Your task to perform on an android device: read, delete, or share a saved page in the chrome app Image 0: 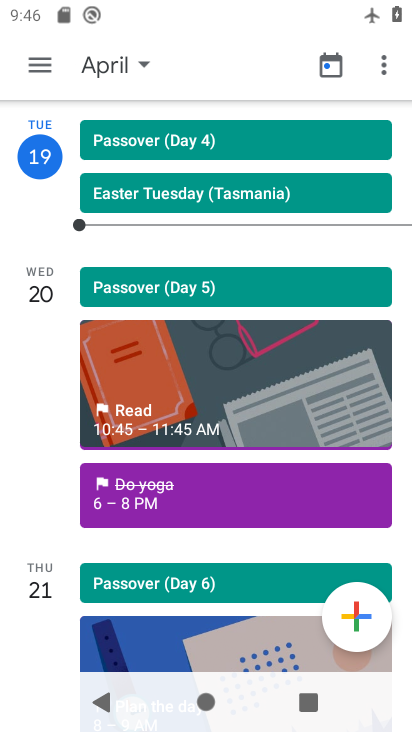
Step 0: press home button
Your task to perform on an android device: read, delete, or share a saved page in the chrome app Image 1: 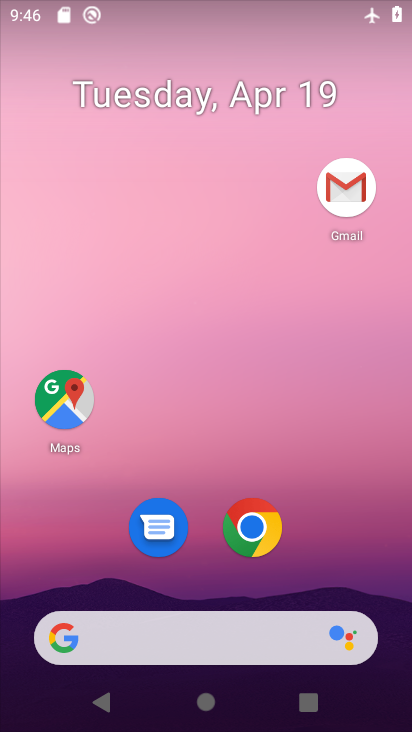
Step 1: click (272, 518)
Your task to perform on an android device: read, delete, or share a saved page in the chrome app Image 2: 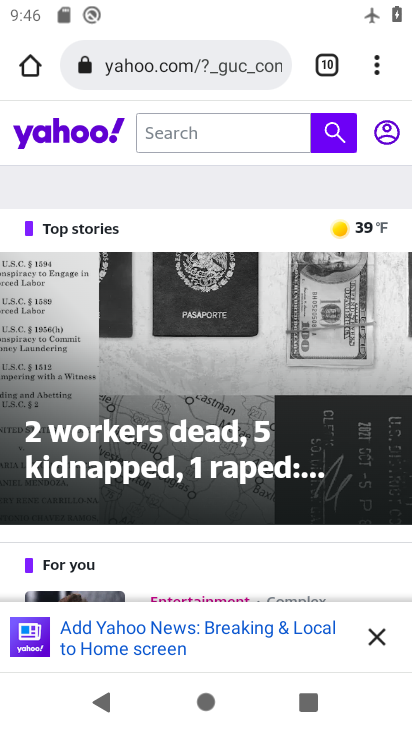
Step 2: click (380, 92)
Your task to perform on an android device: read, delete, or share a saved page in the chrome app Image 3: 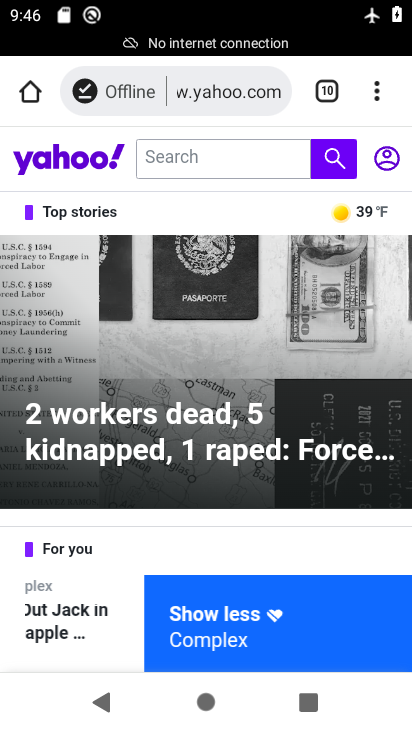
Step 3: click (376, 98)
Your task to perform on an android device: read, delete, or share a saved page in the chrome app Image 4: 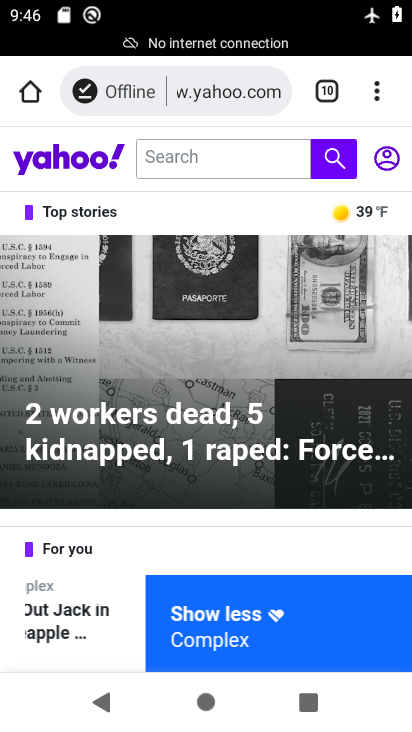
Step 4: click (395, 112)
Your task to perform on an android device: read, delete, or share a saved page in the chrome app Image 5: 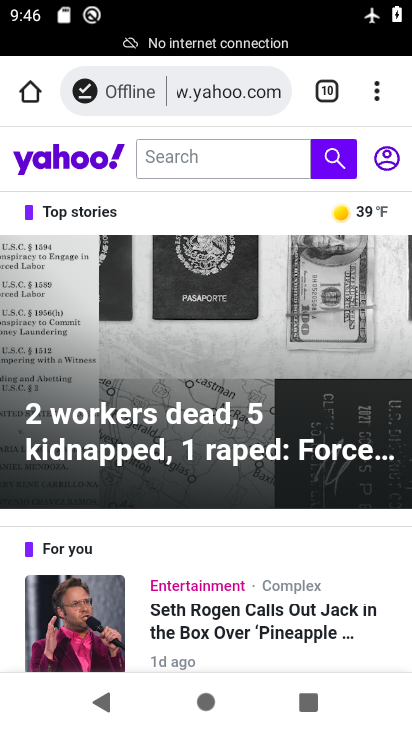
Step 5: drag from (391, 105) to (315, 249)
Your task to perform on an android device: read, delete, or share a saved page in the chrome app Image 6: 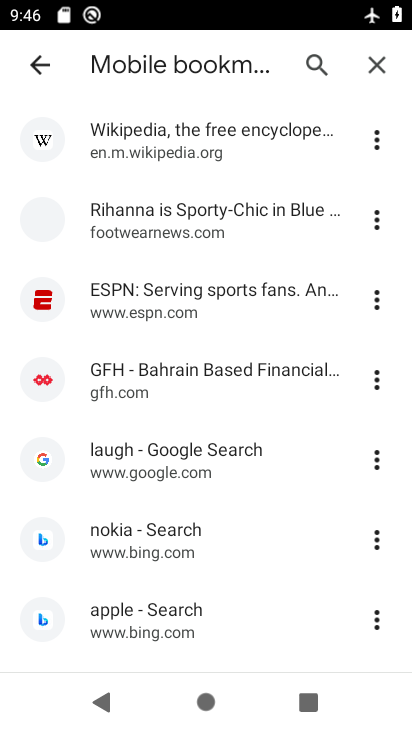
Step 6: click (383, 139)
Your task to perform on an android device: read, delete, or share a saved page in the chrome app Image 7: 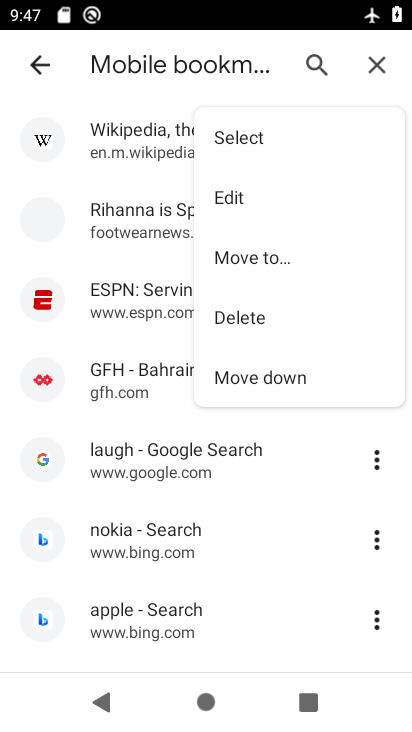
Step 7: click (243, 322)
Your task to perform on an android device: read, delete, or share a saved page in the chrome app Image 8: 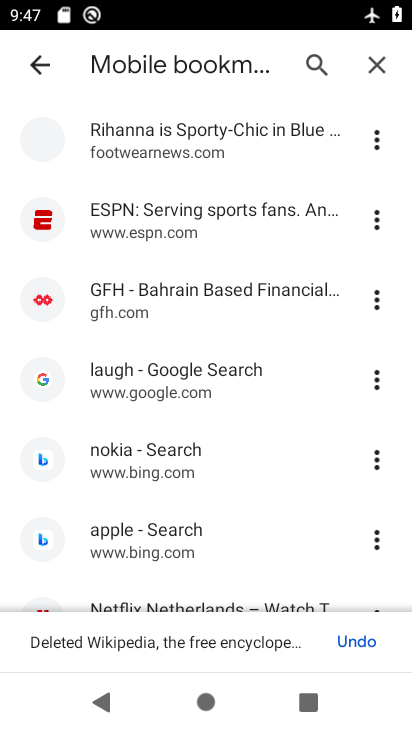
Step 8: task complete